Your task to perform on an android device: Turn off the flashlight Image 0: 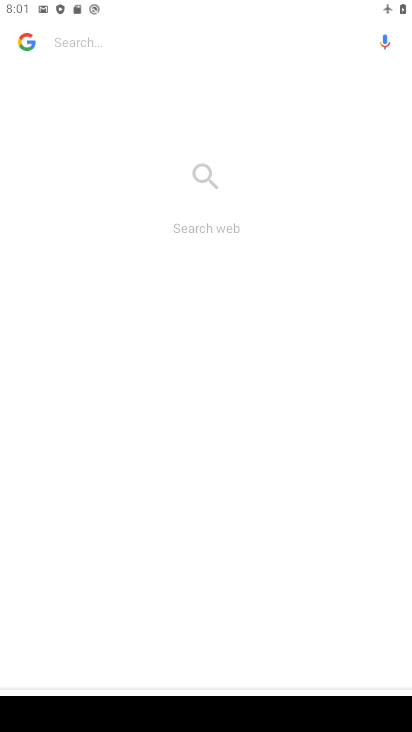
Step 0: press home button
Your task to perform on an android device: Turn off the flashlight Image 1: 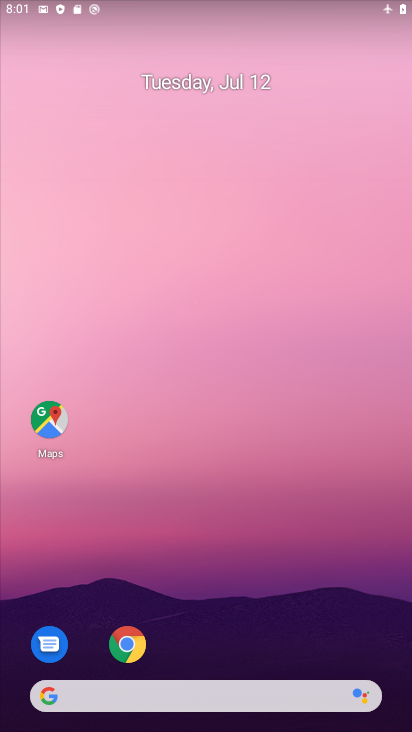
Step 1: drag from (204, 638) to (201, 235)
Your task to perform on an android device: Turn off the flashlight Image 2: 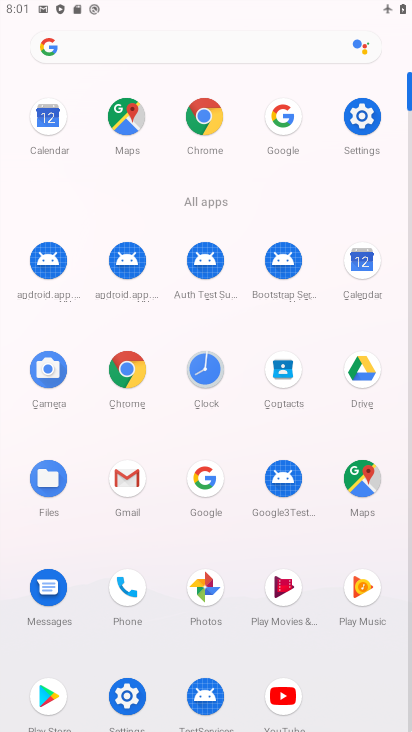
Step 2: click (359, 125)
Your task to perform on an android device: Turn off the flashlight Image 3: 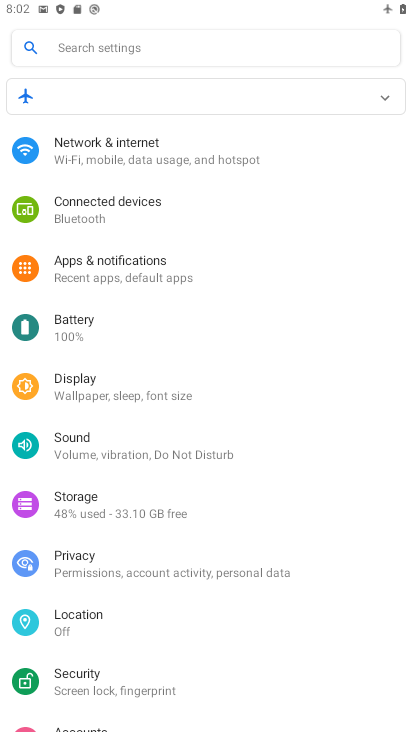
Step 3: task complete